Your task to perform on an android device: Go to Google maps Image 0: 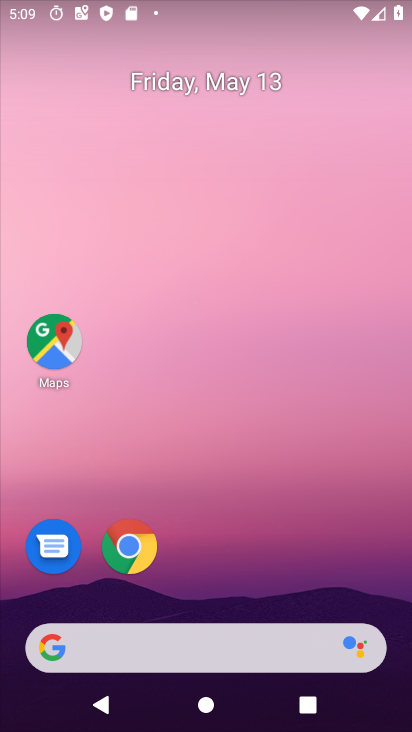
Step 0: click (64, 327)
Your task to perform on an android device: Go to Google maps Image 1: 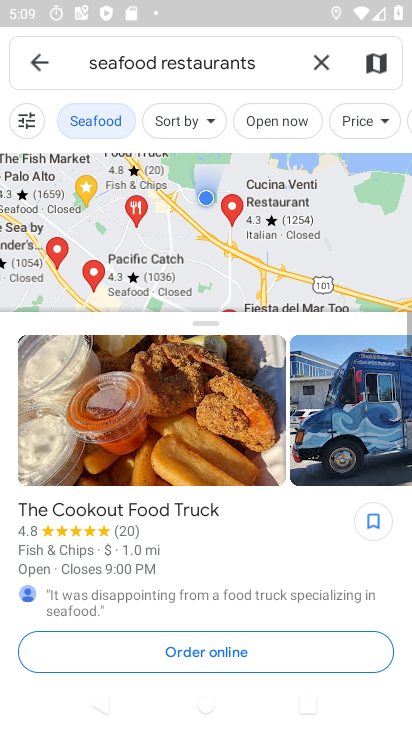
Step 1: task complete